Your task to perform on an android device: find which apps use the phone's location Image 0: 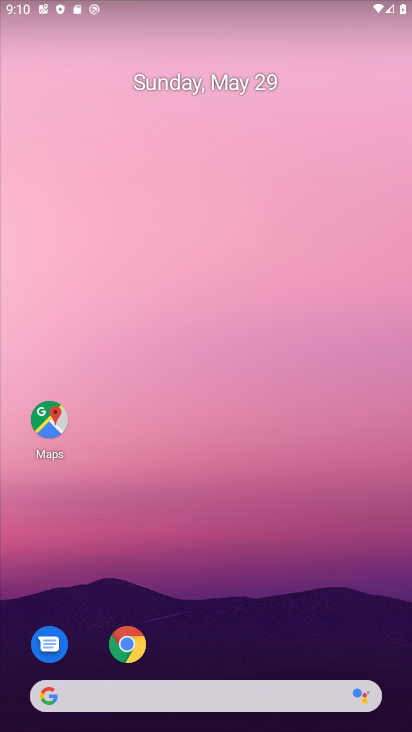
Step 0: drag from (229, 639) to (214, 289)
Your task to perform on an android device: find which apps use the phone's location Image 1: 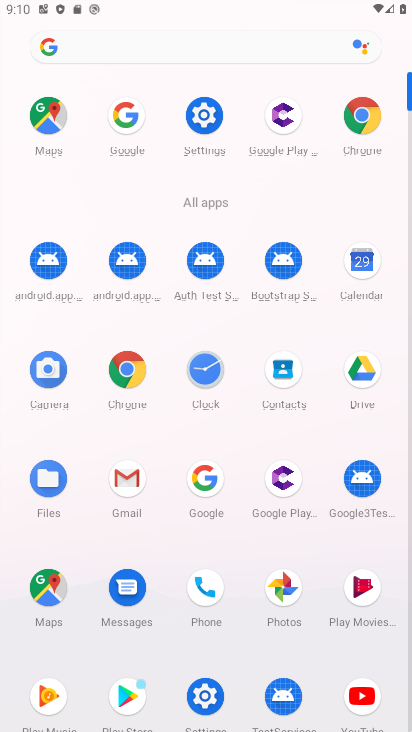
Step 1: click (199, 691)
Your task to perform on an android device: find which apps use the phone's location Image 2: 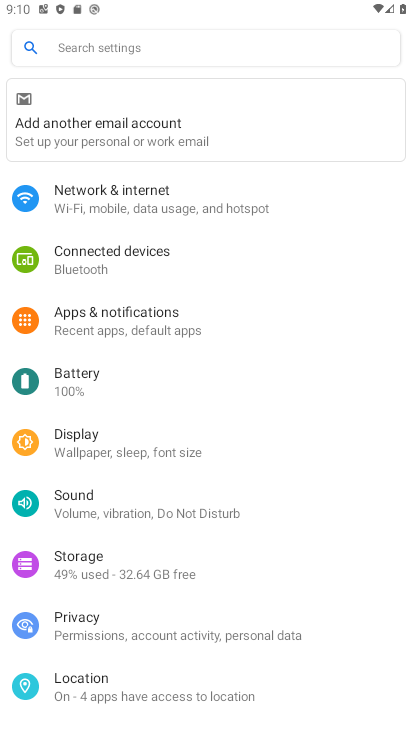
Step 2: click (96, 673)
Your task to perform on an android device: find which apps use the phone's location Image 3: 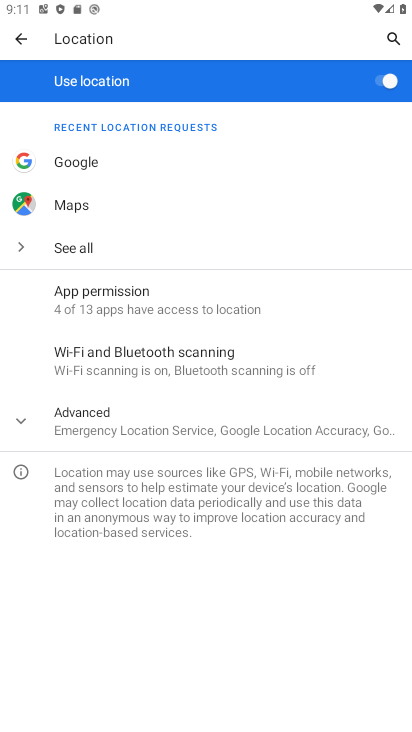
Step 3: task complete